Your task to perform on an android device: snooze an email in the gmail app Image 0: 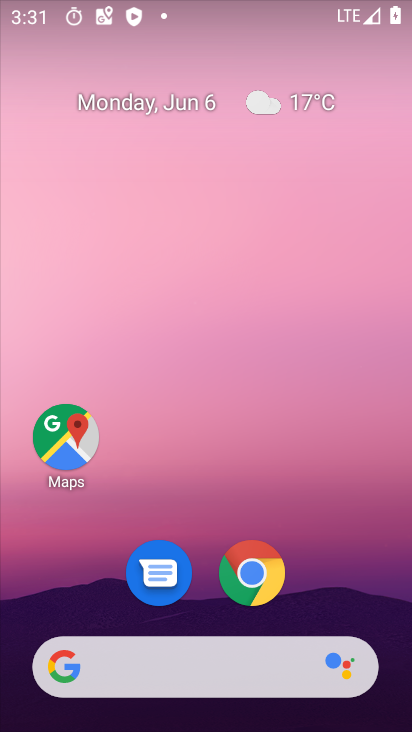
Step 0: drag from (377, 555) to (361, 244)
Your task to perform on an android device: snooze an email in the gmail app Image 1: 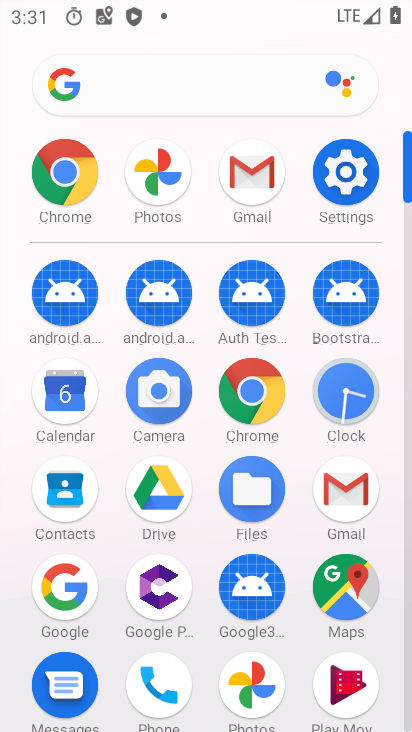
Step 1: click (362, 496)
Your task to perform on an android device: snooze an email in the gmail app Image 2: 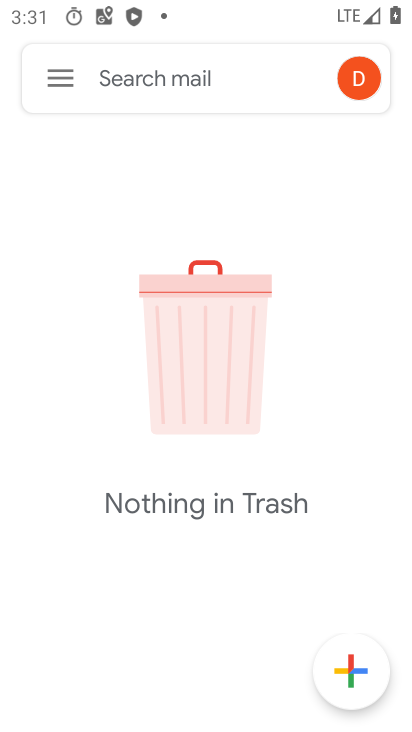
Step 2: click (68, 85)
Your task to perform on an android device: snooze an email in the gmail app Image 3: 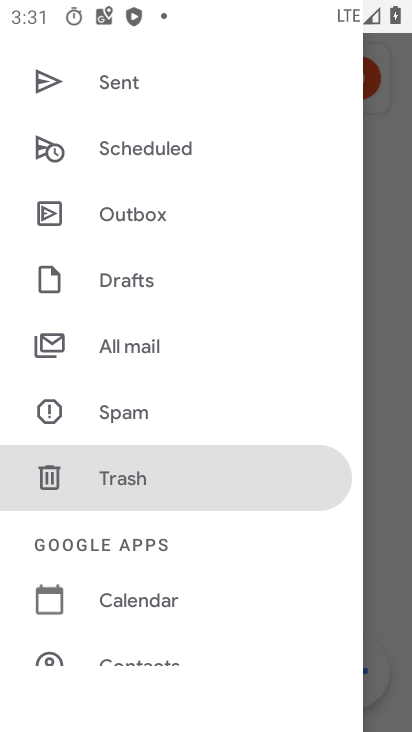
Step 3: drag from (235, 303) to (247, 408)
Your task to perform on an android device: snooze an email in the gmail app Image 4: 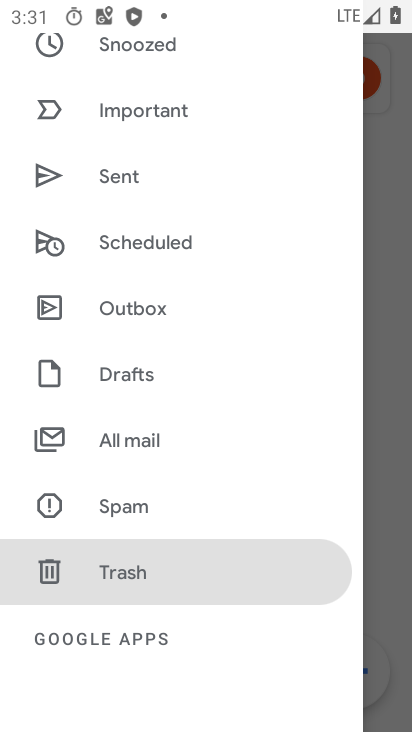
Step 4: drag from (247, 283) to (246, 404)
Your task to perform on an android device: snooze an email in the gmail app Image 5: 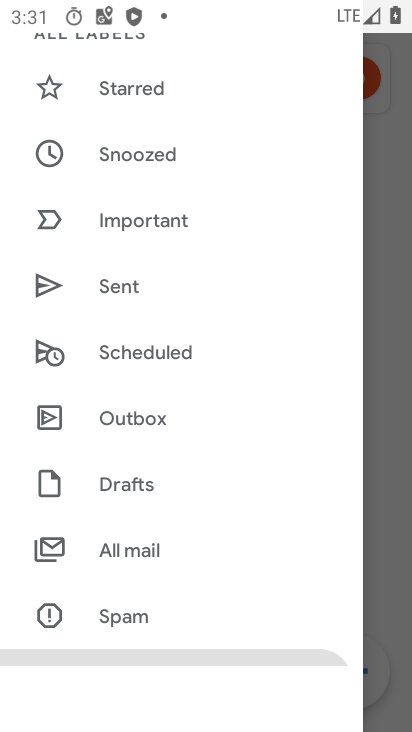
Step 5: drag from (235, 249) to (240, 367)
Your task to perform on an android device: snooze an email in the gmail app Image 6: 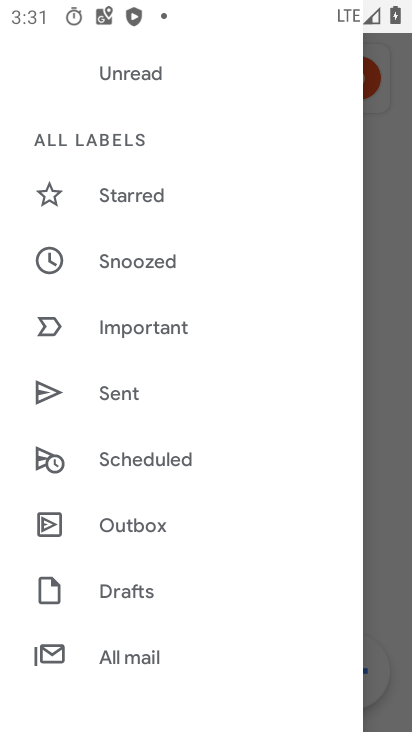
Step 6: drag from (252, 190) to (260, 360)
Your task to perform on an android device: snooze an email in the gmail app Image 7: 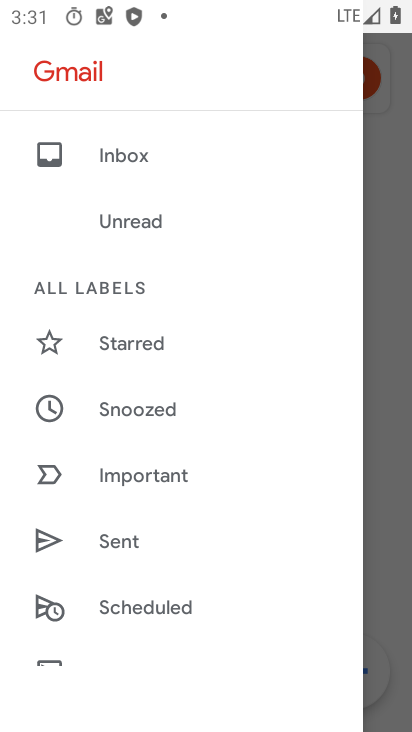
Step 7: click (188, 419)
Your task to perform on an android device: snooze an email in the gmail app Image 8: 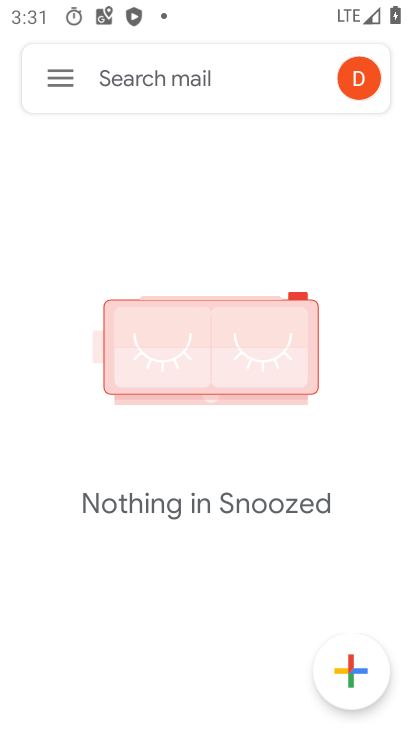
Step 8: task complete